Your task to perform on an android device: When is my next meeting? Image 0: 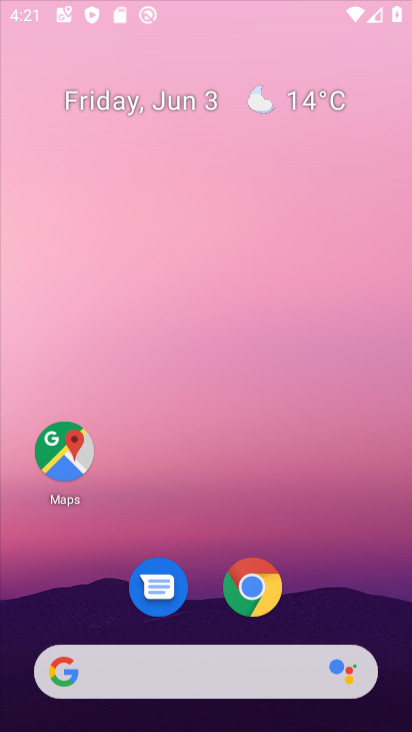
Step 0: click (137, 299)
Your task to perform on an android device: When is my next meeting? Image 1: 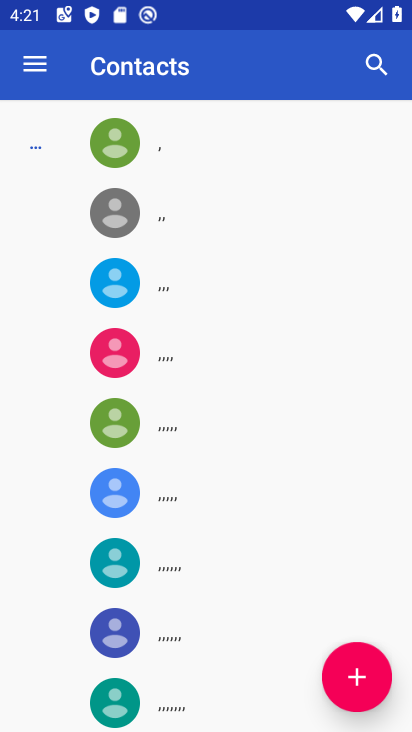
Step 1: press home button
Your task to perform on an android device: When is my next meeting? Image 2: 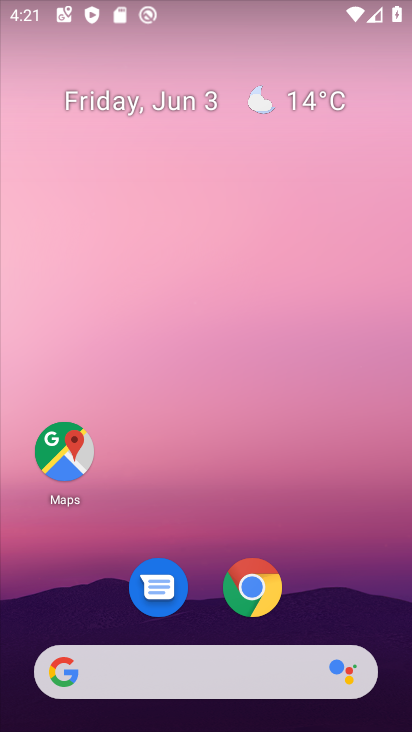
Step 2: drag from (215, 658) to (195, 240)
Your task to perform on an android device: When is my next meeting? Image 3: 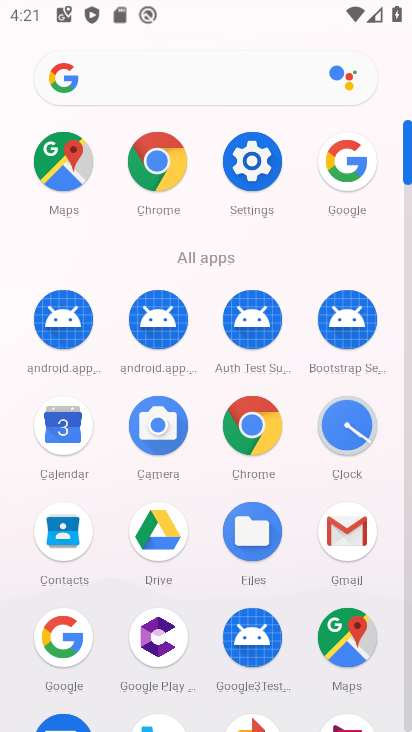
Step 3: drag from (202, 601) to (182, 353)
Your task to perform on an android device: When is my next meeting? Image 4: 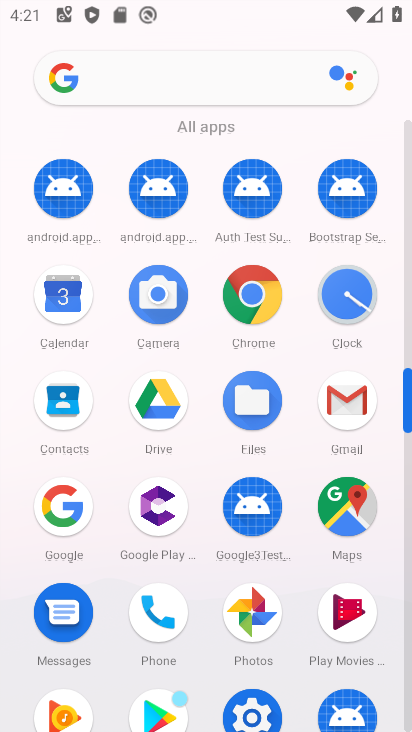
Step 4: drag from (204, 631) to (201, 474)
Your task to perform on an android device: When is my next meeting? Image 5: 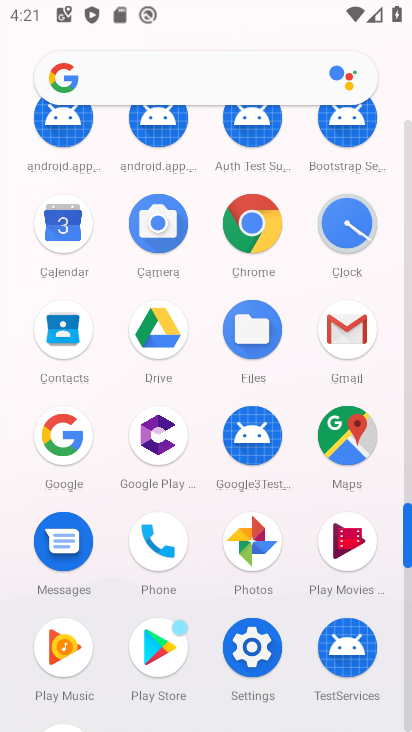
Step 5: click (58, 222)
Your task to perform on an android device: When is my next meeting? Image 6: 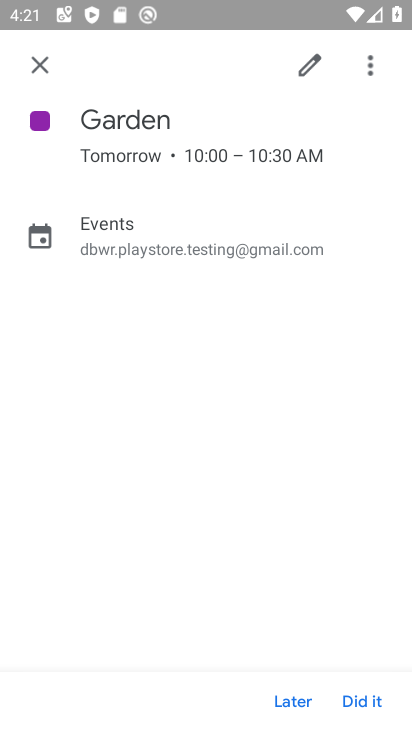
Step 6: click (39, 69)
Your task to perform on an android device: When is my next meeting? Image 7: 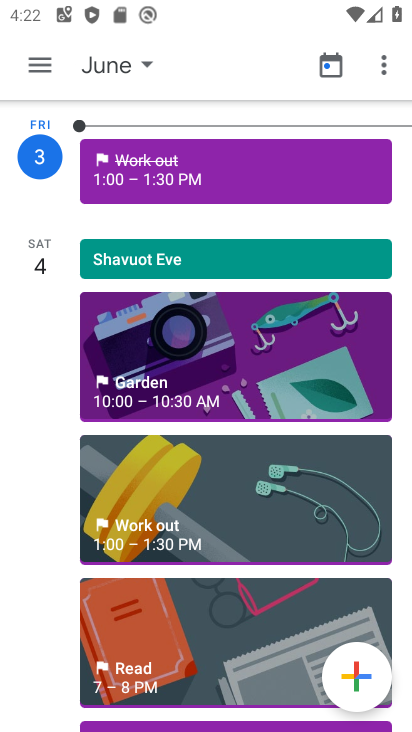
Step 7: click (123, 169)
Your task to perform on an android device: When is my next meeting? Image 8: 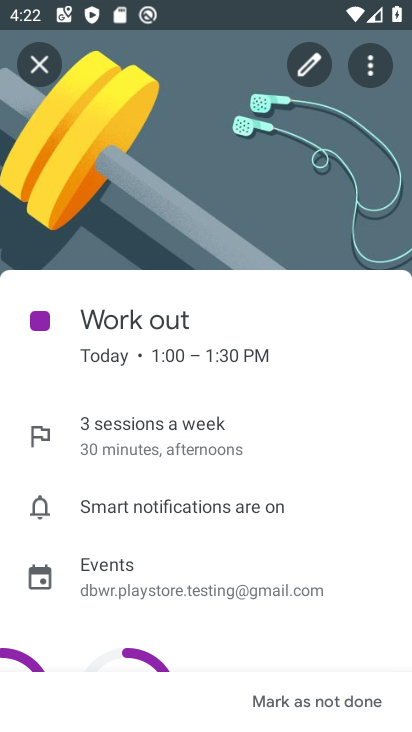
Step 8: task complete